Your task to perform on an android device: Go to display settings Image 0: 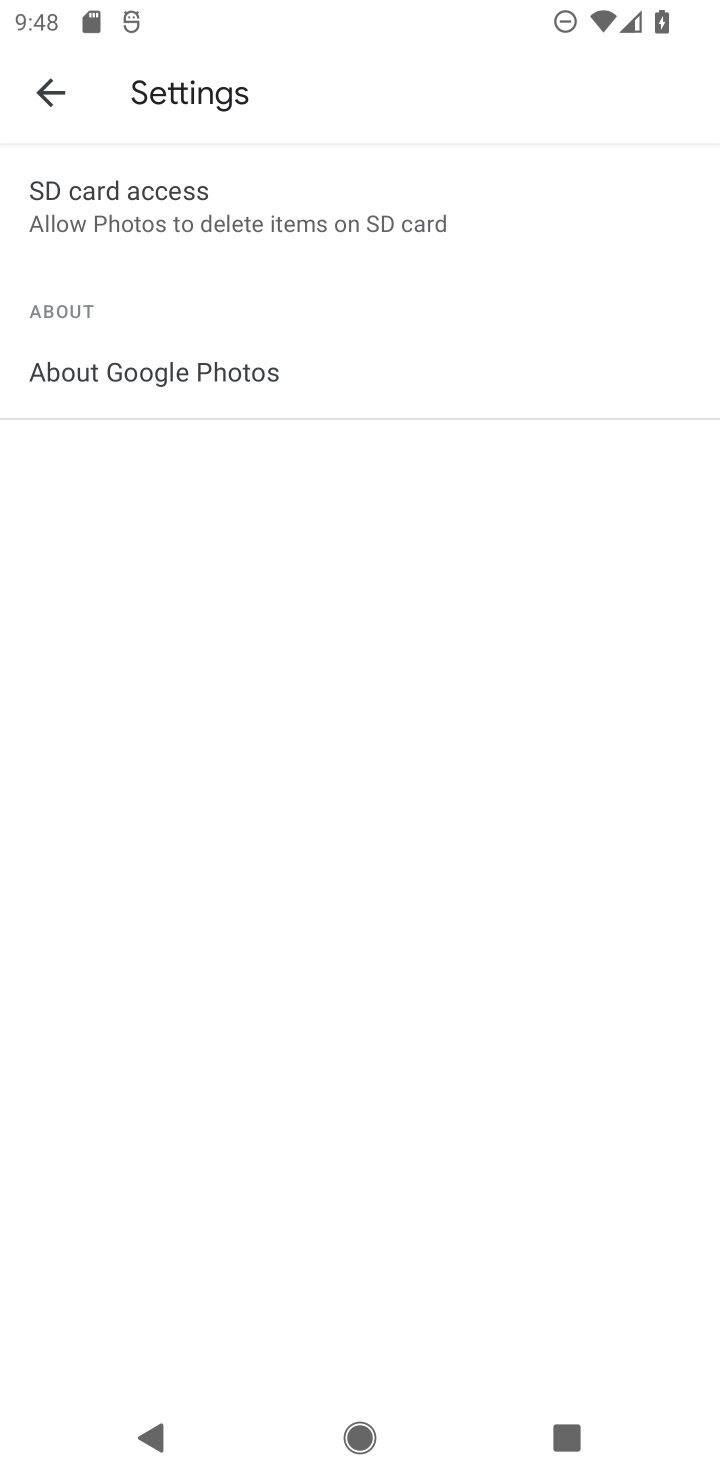
Step 0: click (47, 93)
Your task to perform on an android device: Go to display settings Image 1: 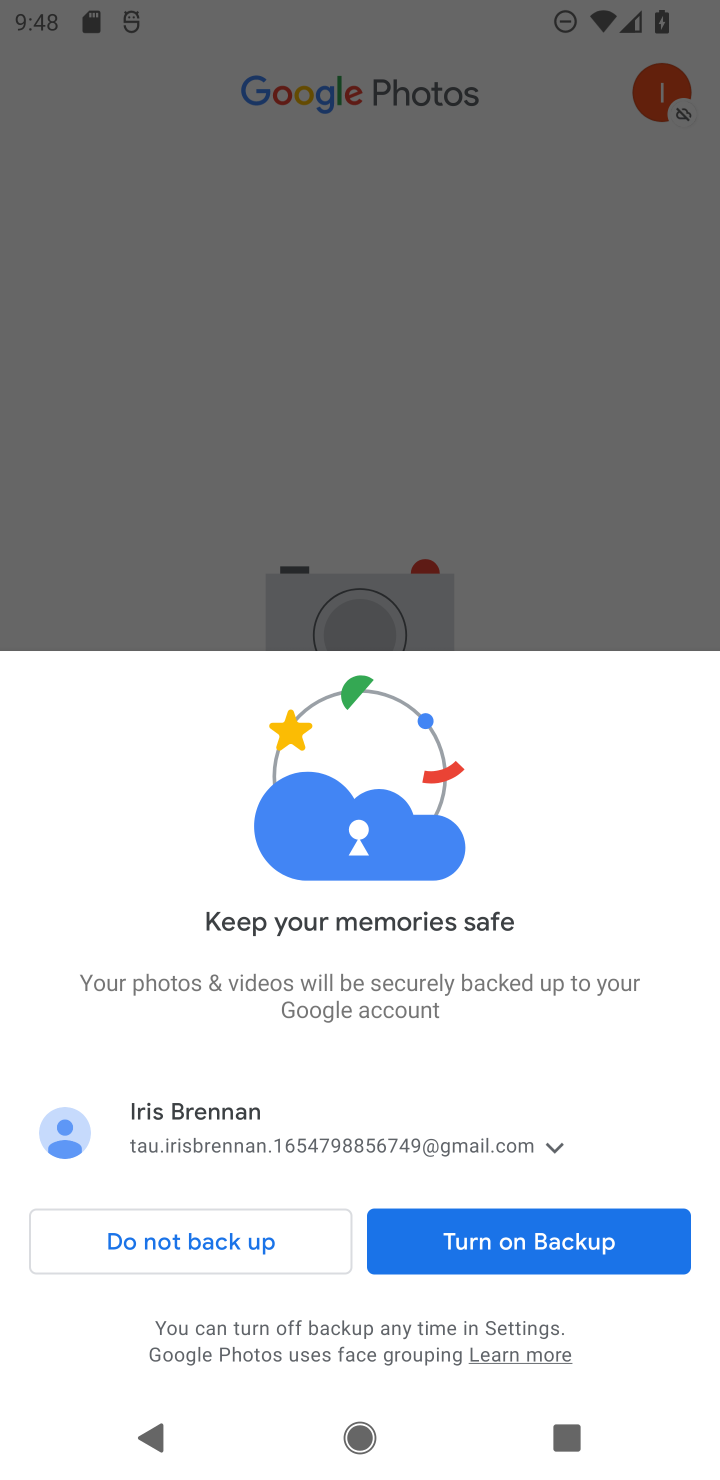
Step 1: press home button
Your task to perform on an android device: Go to display settings Image 2: 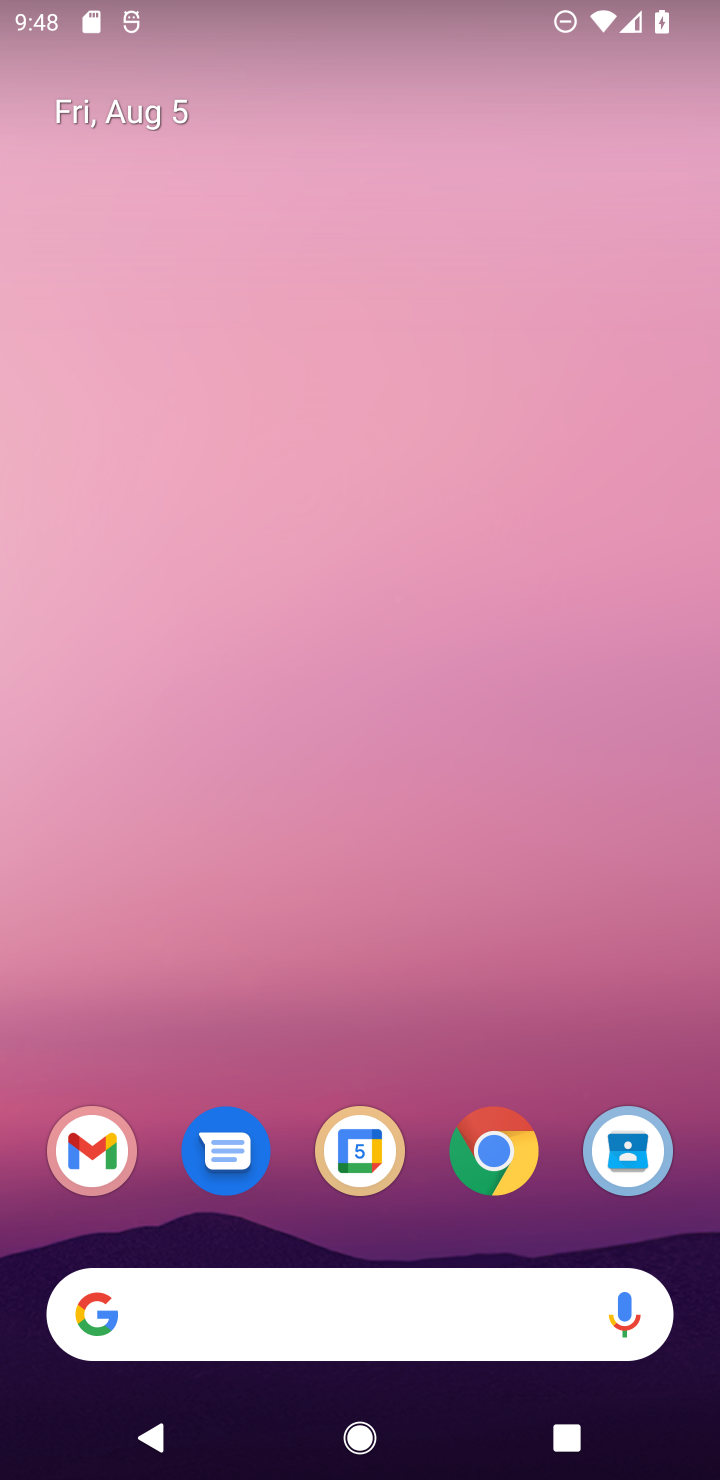
Step 2: drag from (384, 917) to (437, 96)
Your task to perform on an android device: Go to display settings Image 3: 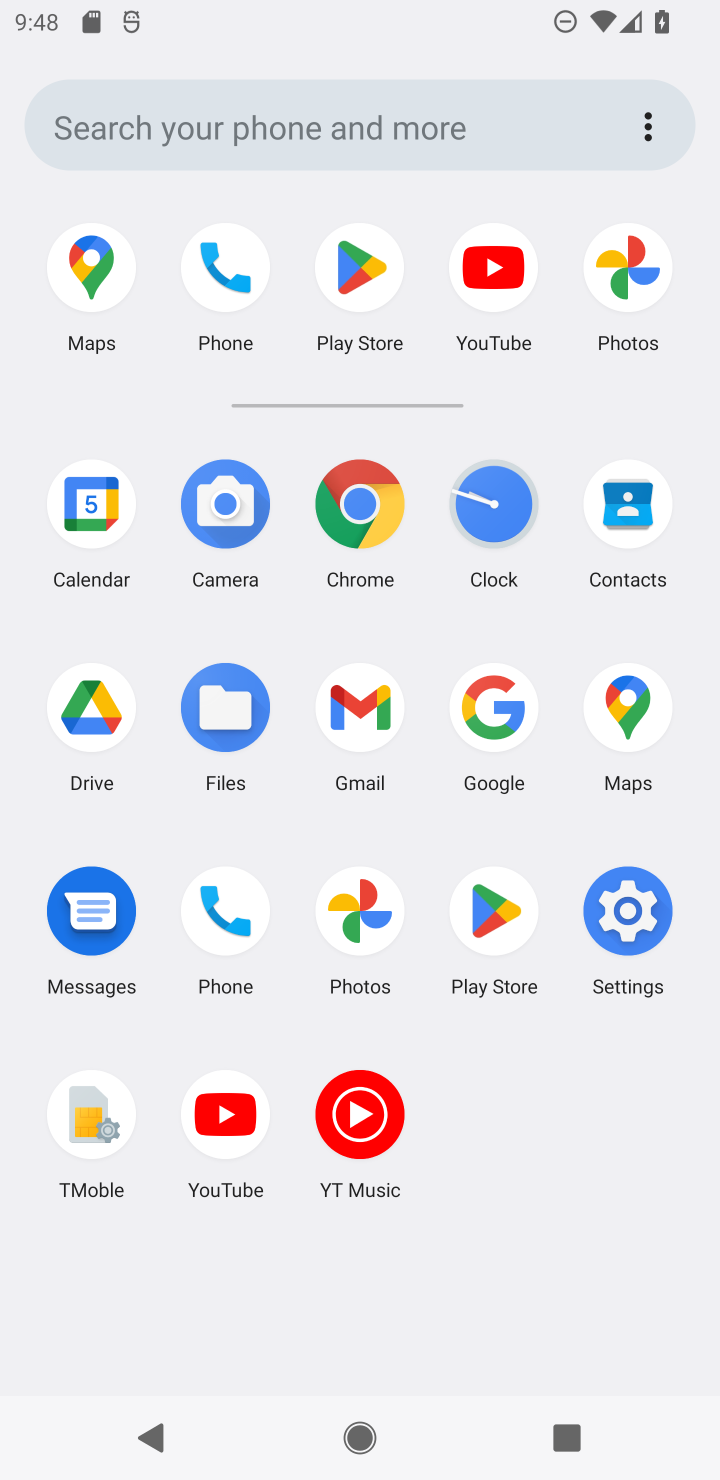
Step 3: click (628, 900)
Your task to perform on an android device: Go to display settings Image 4: 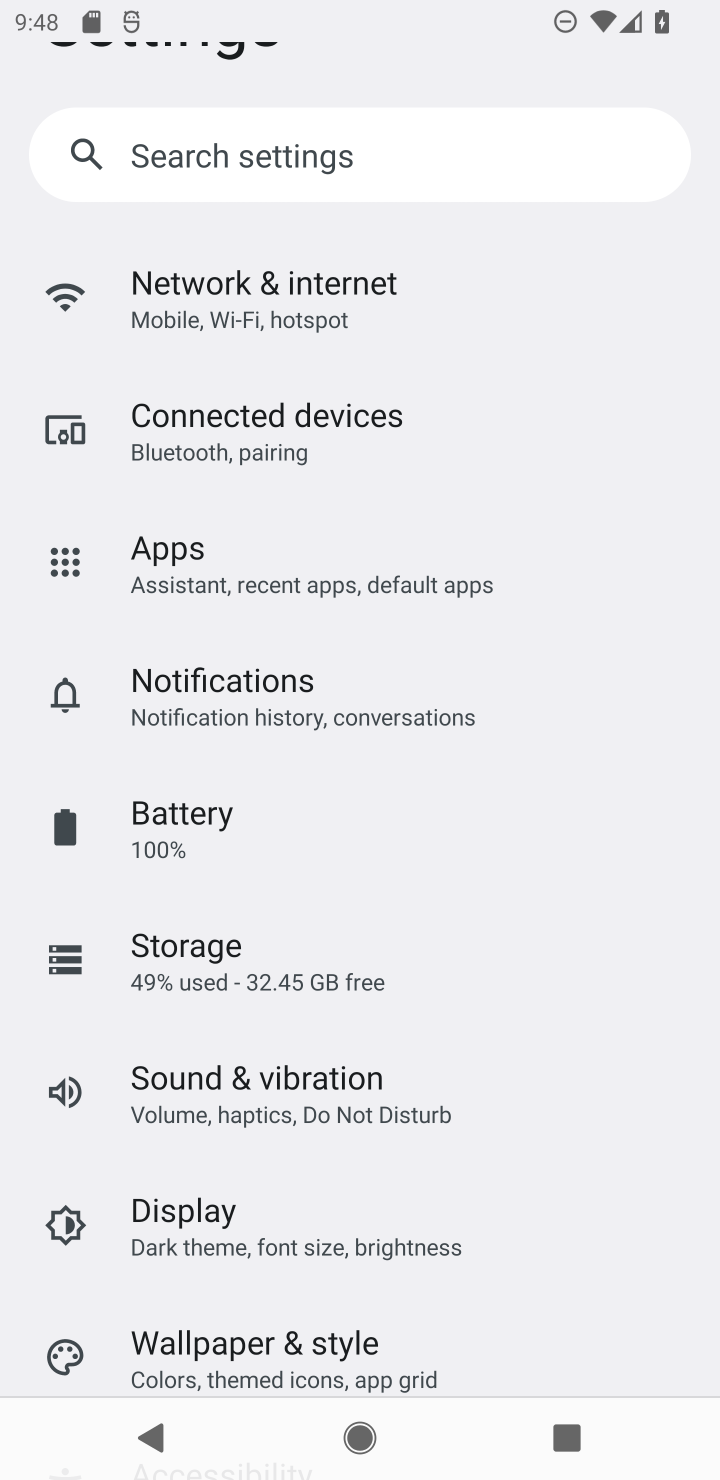
Step 4: click (202, 1224)
Your task to perform on an android device: Go to display settings Image 5: 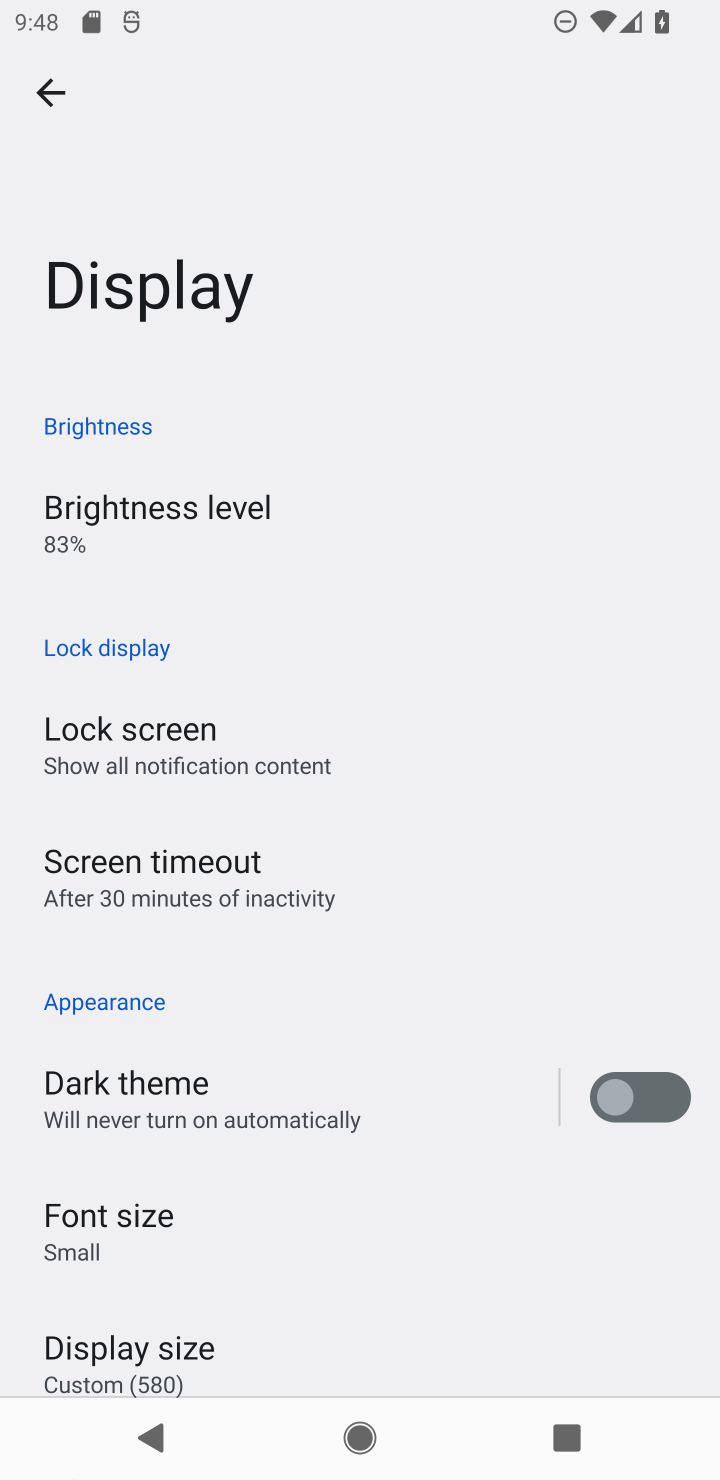
Step 5: task complete